Your task to perform on an android device: change timer sound Image 0: 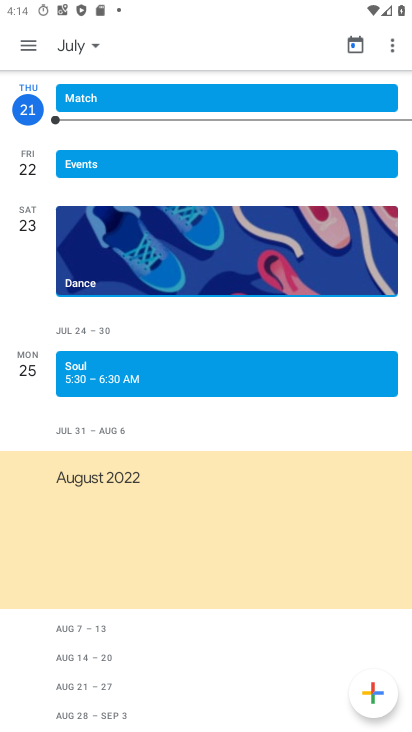
Step 0: press home button
Your task to perform on an android device: change timer sound Image 1: 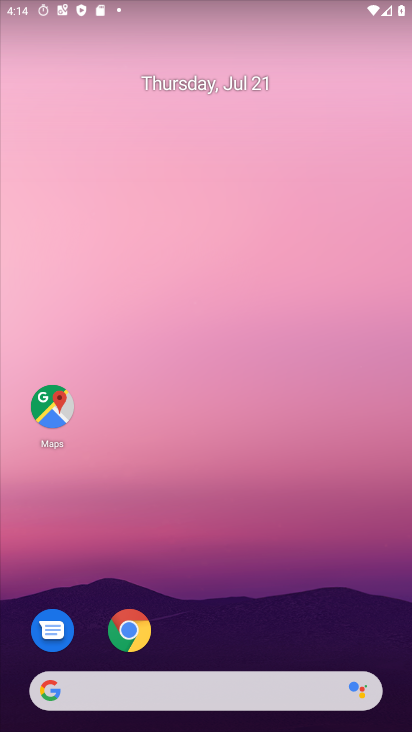
Step 1: drag from (224, 706) to (210, 56)
Your task to perform on an android device: change timer sound Image 2: 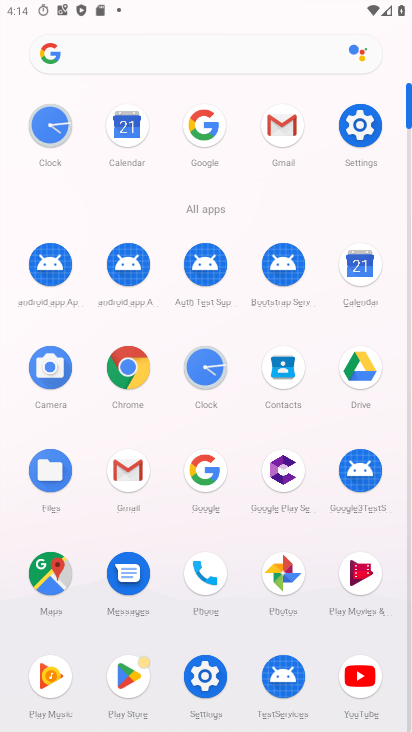
Step 2: click (201, 365)
Your task to perform on an android device: change timer sound Image 3: 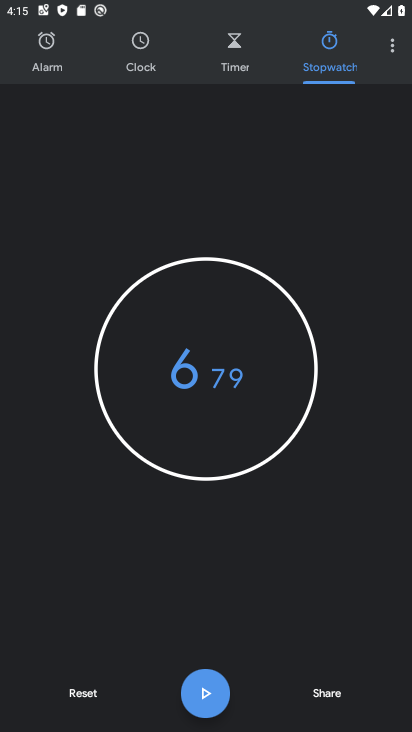
Step 3: click (395, 49)
Your task to perform on an android device: change timer sound Image 4: 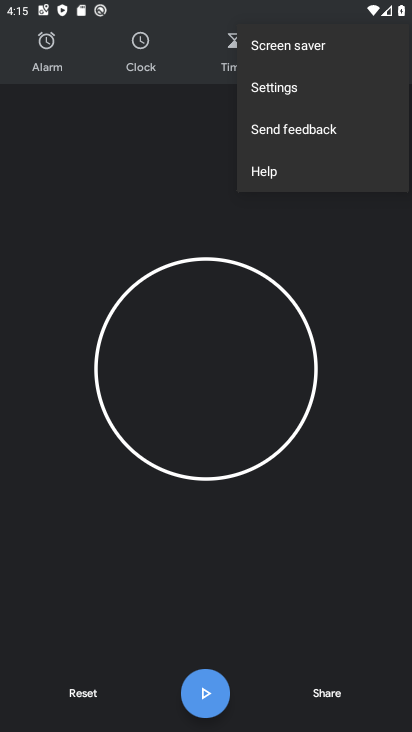
Step 4: click (279, 89)
Your task to perform on an android device: change timer sound Image 5: 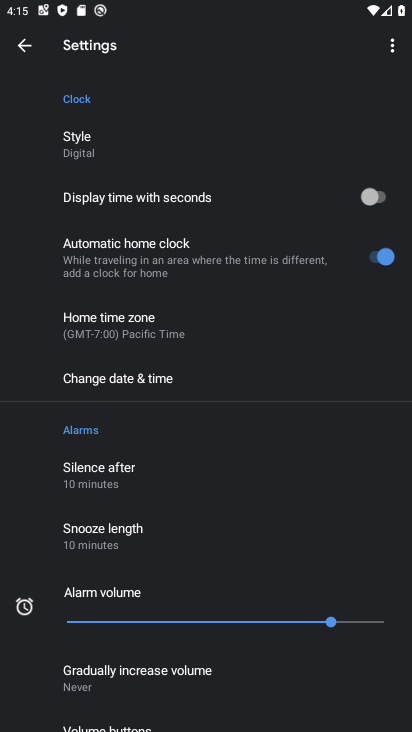
Step 5: drag from (132, 565) to (188, 400)
Your task to perform on an android device: change timer sound Image 6: 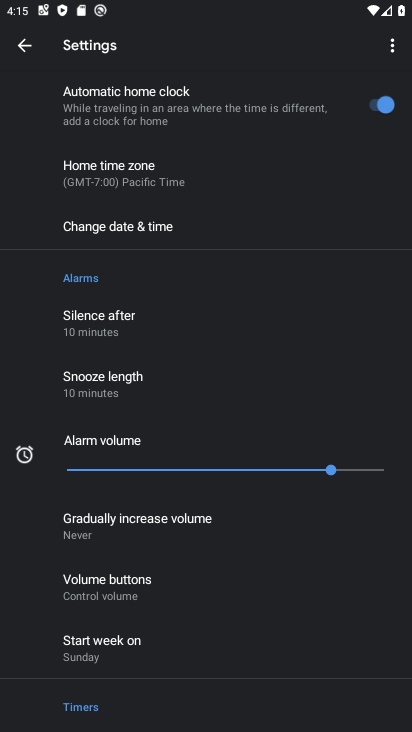
Step 6: drag from (80, 602) to (153, 451)
Your task to perform on an android device: change timer sound Image 7: 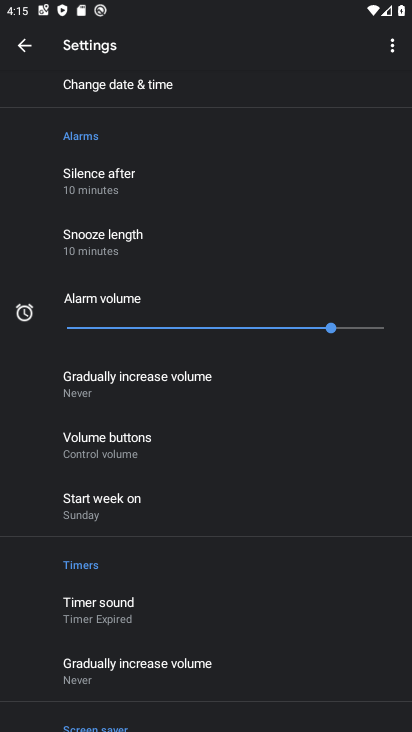
Step 7: drag from (139, 576) to (187, 497)
Your task to perform on an android device: change timer sound Image 8: 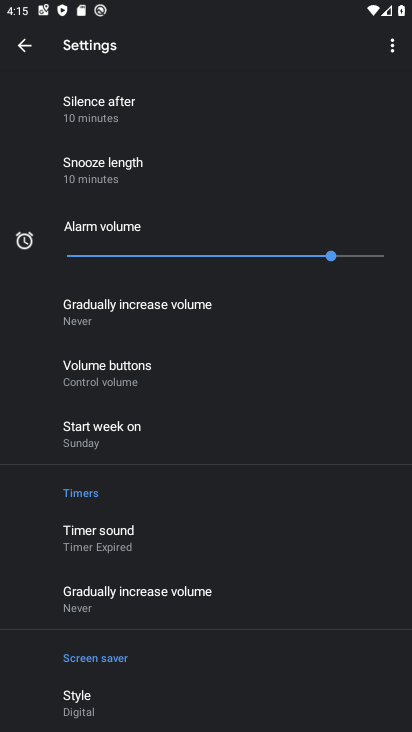
Step 8: click (131, 550)
Your task to perform on an android device: change timer sound Image 9: 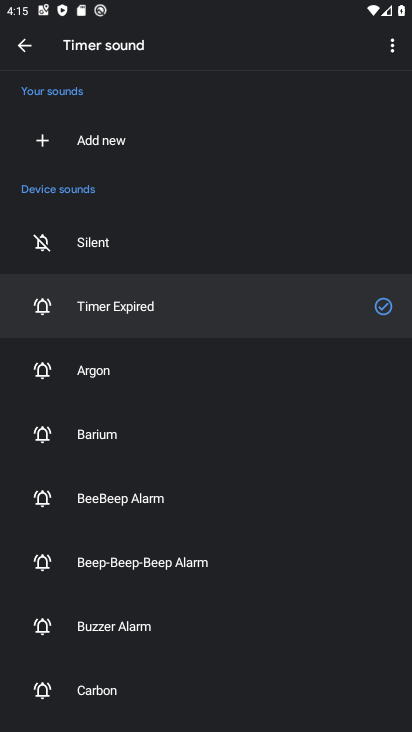
Step 9: drag from (112, 610) to (179, 504)
Your task to perform on an android device: change timer sound Image 10: 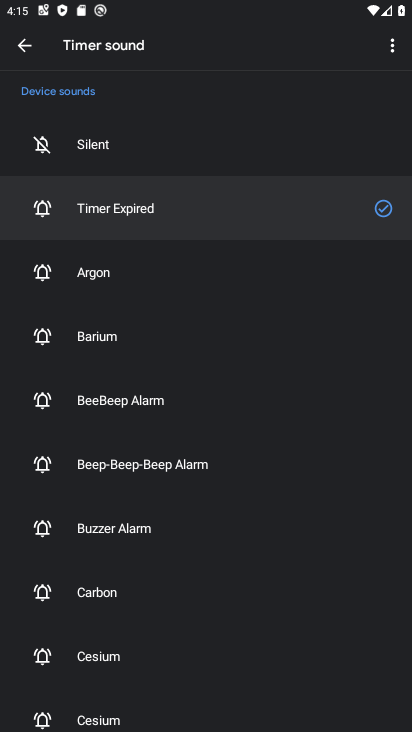
Step 10: drag from (144, 595) to (205, 476)
Your task to perform on an android device: change timer sound Image 11: 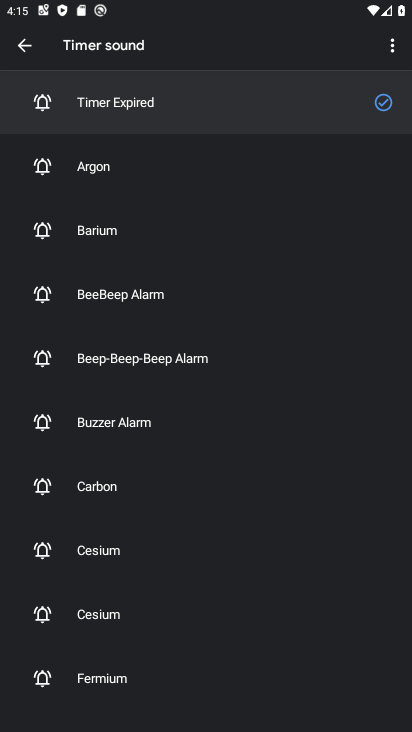
Step 11: drag from (141, 576) to (220, 458)
Your task to perform on an android device: change timer sound Image 12: 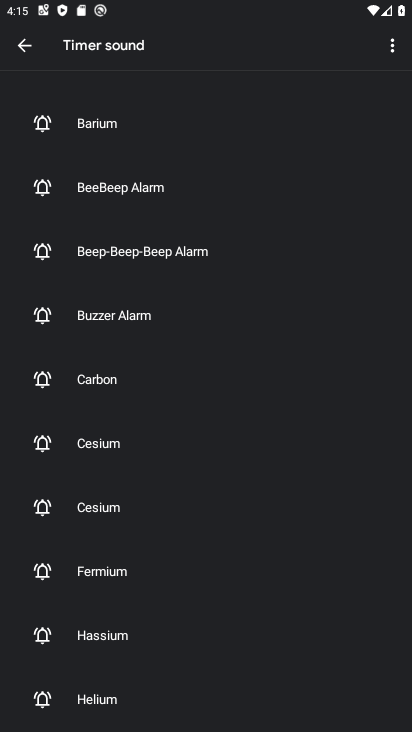
Step 12: click (115, 516)
Your task to perform on an android device: change timer sound Image 13: 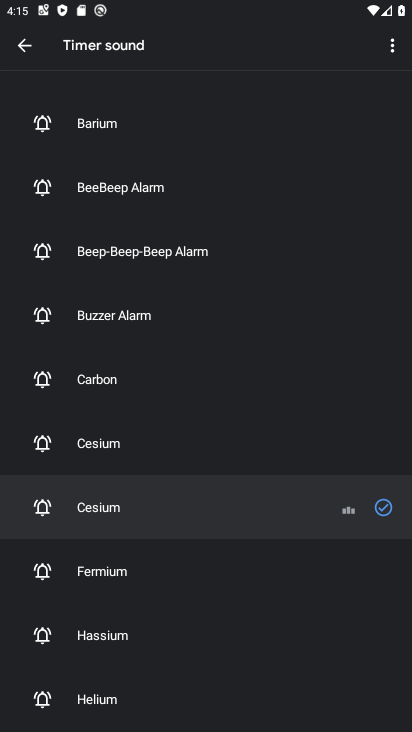
Step 13: task complete